Your task to perform on an android device: Clear the cart on bestbuy.com. Add "logitech g pro" to the cart on bestbuy.com, then select checkout. Image 0: 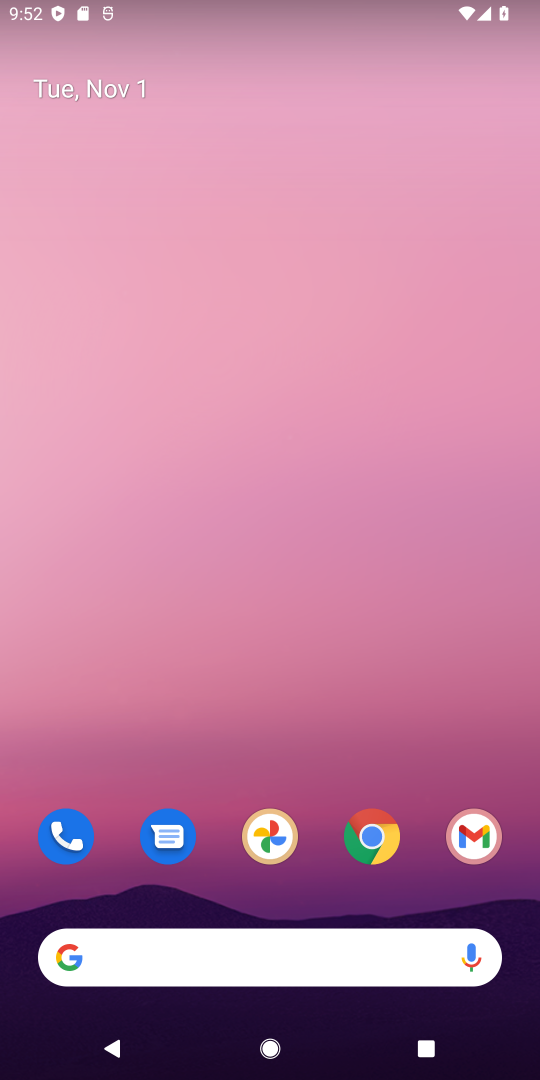
Step 0: click (352, 842)
Your task to perform on an android device: Clear the cart on bestbuy.com. Add "logitech g pro" to the cart on bestbuy.com, then select checkout. Image 1: 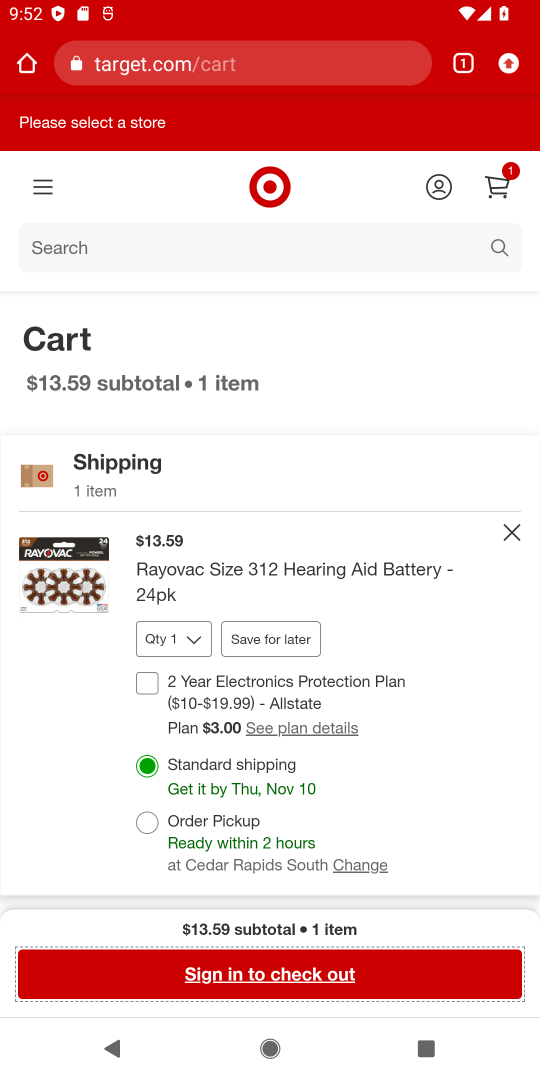
Step 1: click (279, 77)
Your task to perform on an android device: Clear the cart on bestbuy.com. Add "logitech g pro" to the cart on bestbuy.com, then select checkout. Image 2: 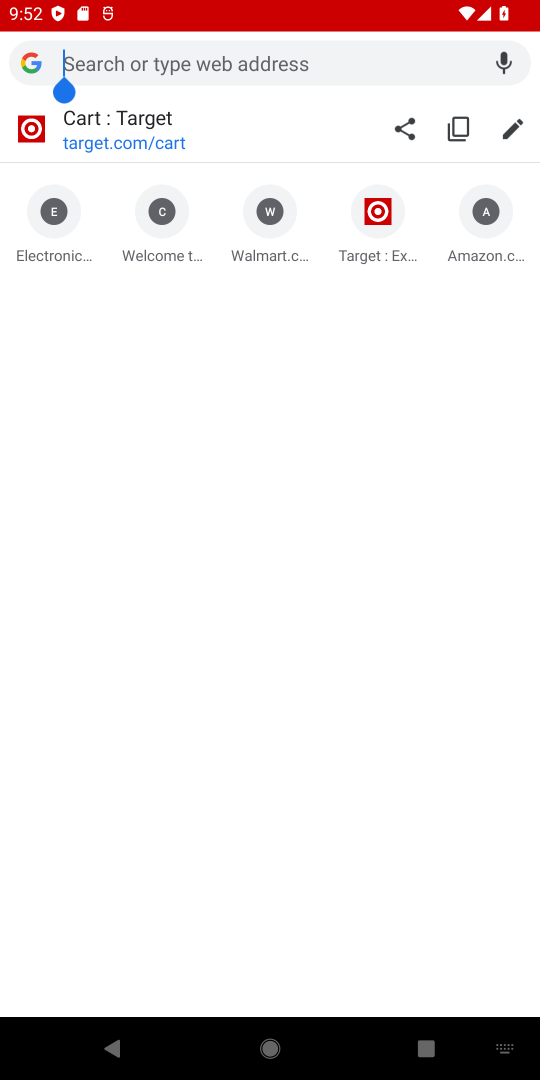
Step 2: type "bestbuy.com"
Your task to perform on an android device: Clear the cart on bestbuy.com. Add "logitech g pro" to the cart on bestbuy.com, then select checkout. Image 3: 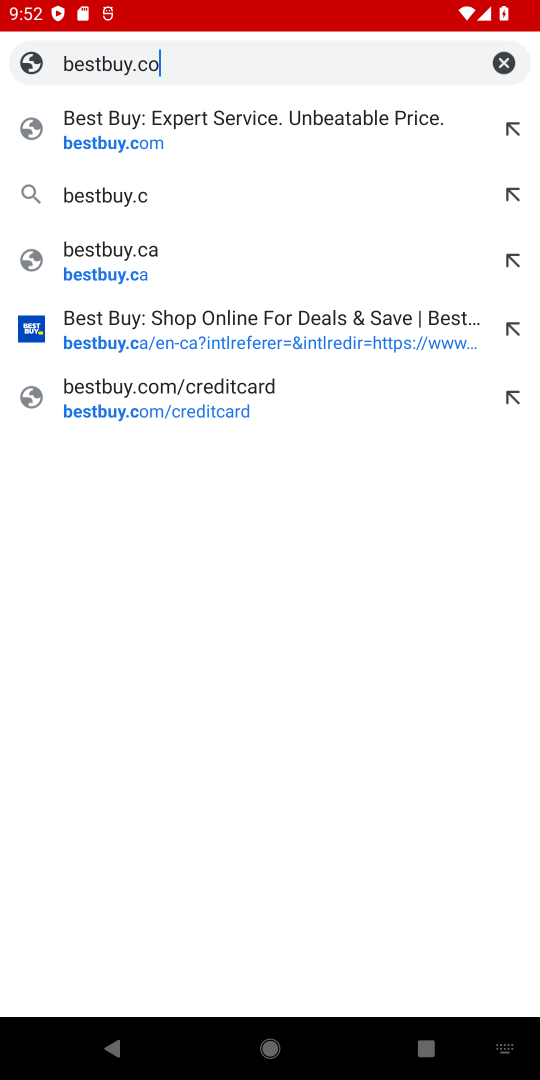
Step 3: type ""
Your task to perform on an android device: Clear the cart on bestbuy.com. Add "logitech g pro" to the cart on bestbuy.com, then select checkout. Image 4: 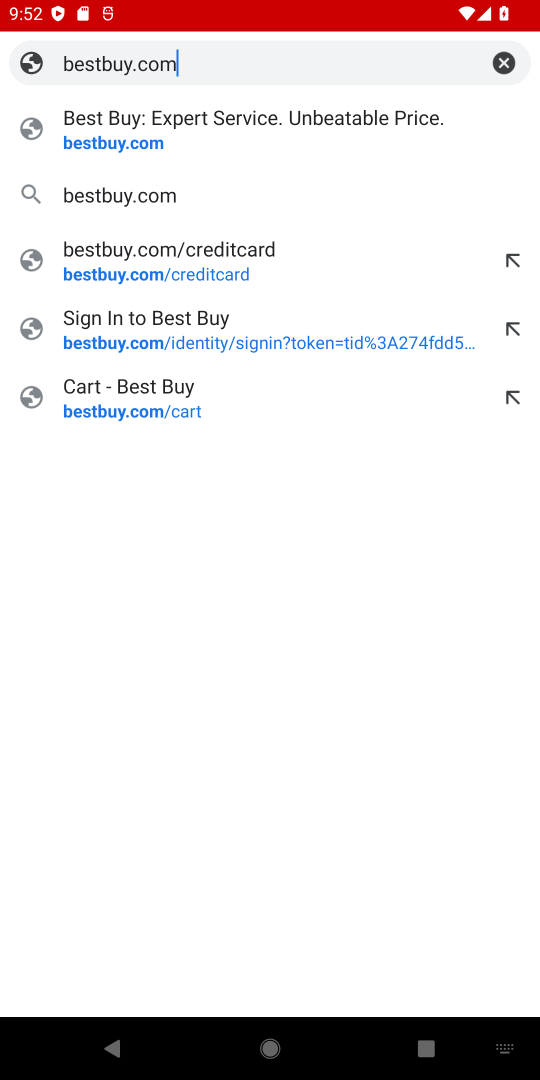
Step 4: click (306, 141)
Your task to perform on an android device: Clear the cart on bestbuy.com. Add "logitech g pro" to the cart on bestbuy.com, then select checkout. Image 5: 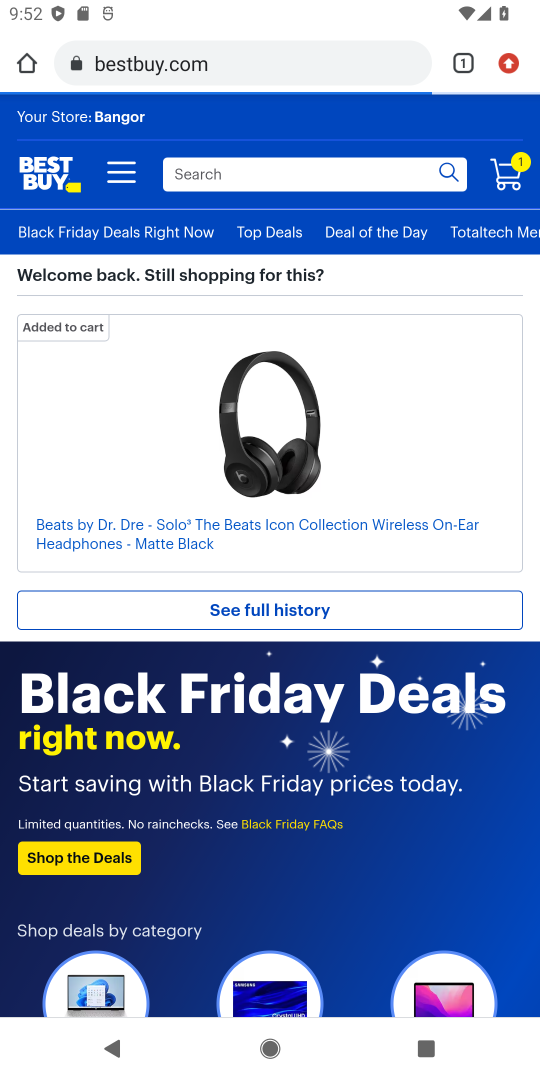
Step 5: click (300, 165)
Your task to perform on an android device: Clear the cart on bestbuy.com. Add "logitech g pro" to the cart on bestbuy.com, then select checkout. Image 6: 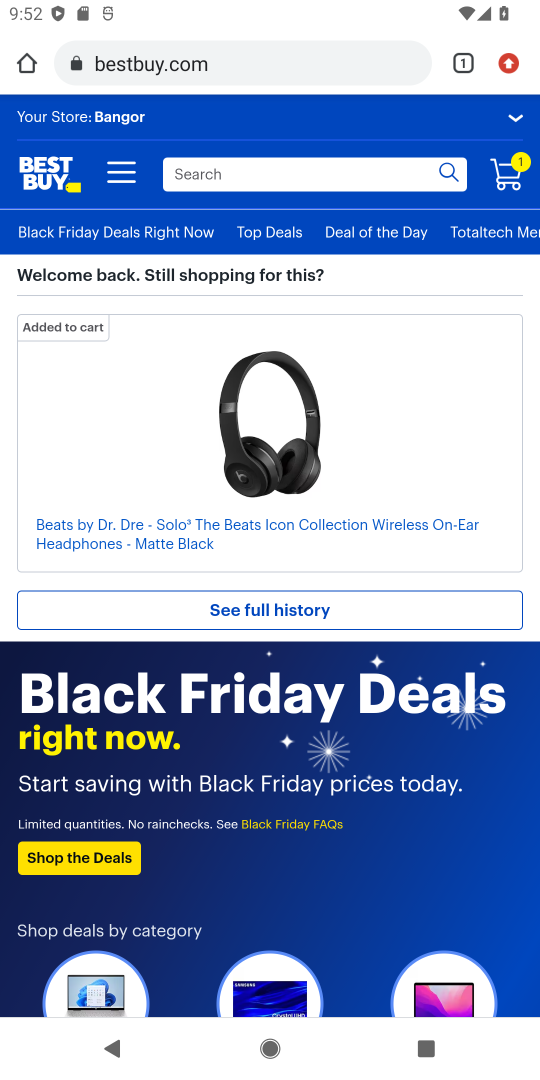
Step 6: click (307, 151)
Your task to perform on an android device: Clear the cart on bestbuy.com. Add "logitech g pro" to the cart on bestbuy.com, then select checkout. Image 7: 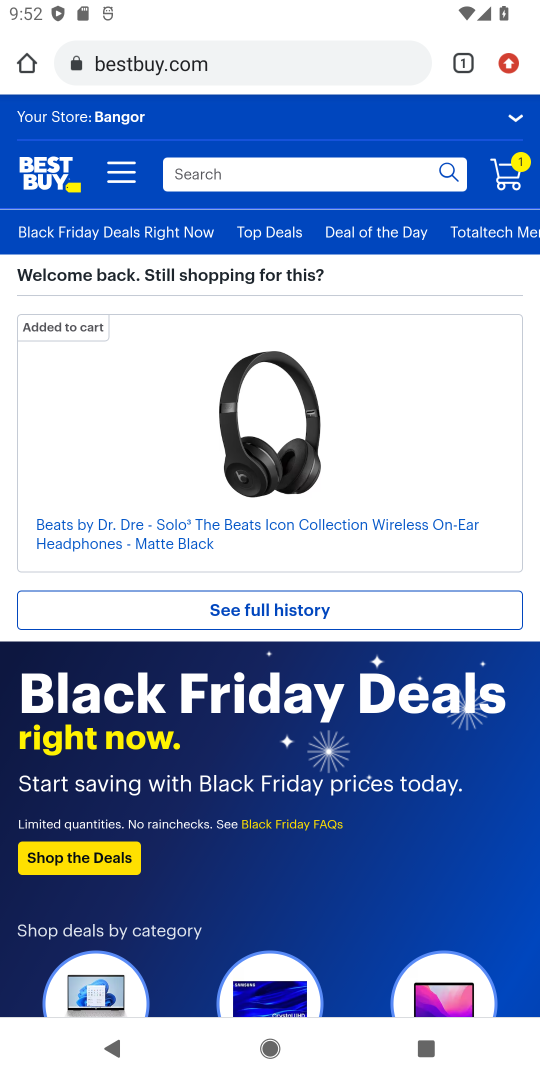
Step 7: click (298, 162)
Your task to perform on an android device: Clear the cart on bestbuy.com. Add "logitech g pro" to the cart on bestbuy.com, then select checkout. Image 8: 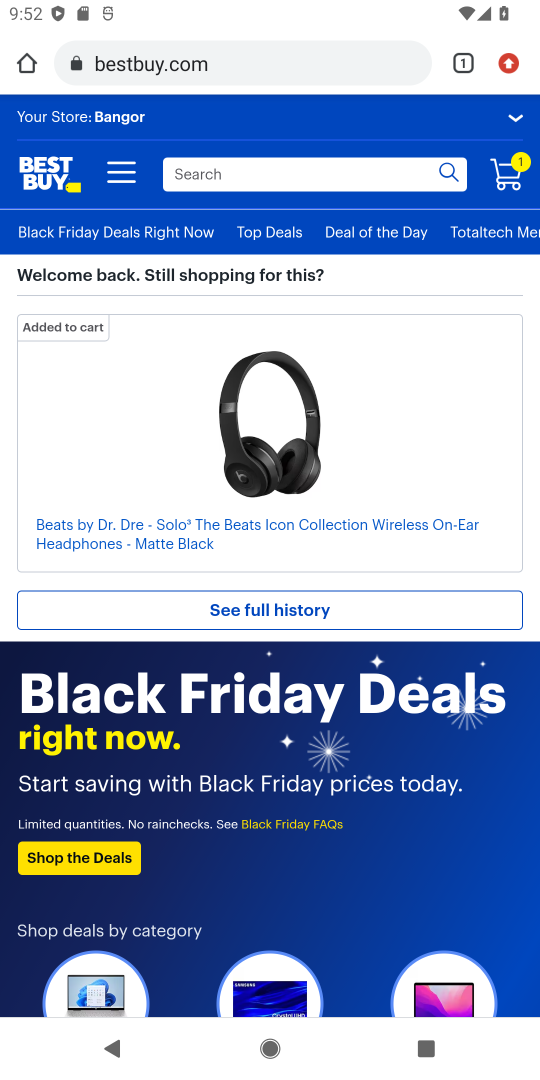
Step 8: click (361, 189)
Your task to perform on an android device: Clear the cart on bestbuy.com. Add "logitech g pro" to the cart on bestbuy.com, then select checkout. Image 9: 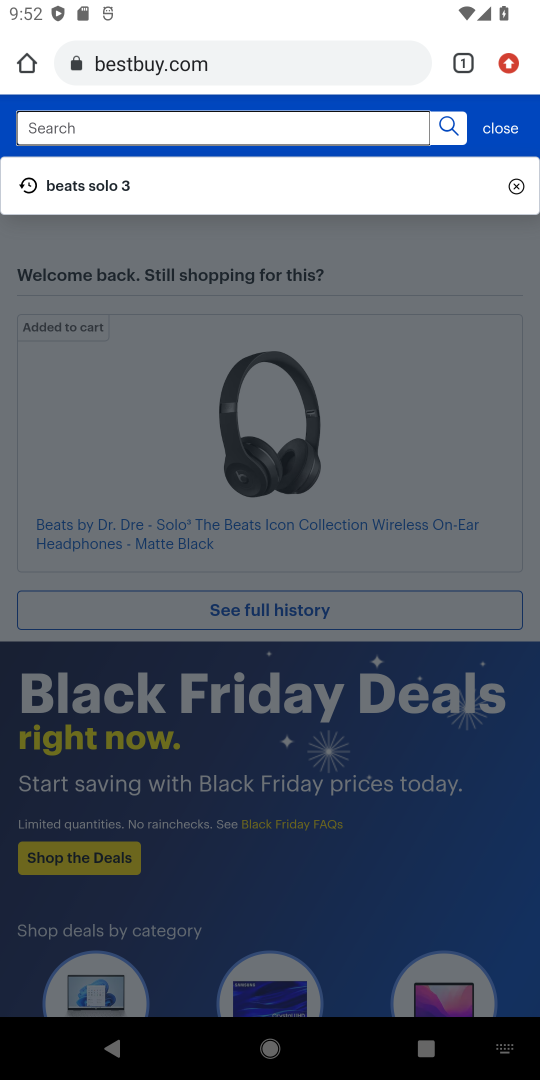
Step 9: type "logitech g pro"
Your task to perform on an android device: Clear the cart on bestbuy.com. Add "logitech g pro" to the cart on bestbuy.com, then select checkout. Image 10: 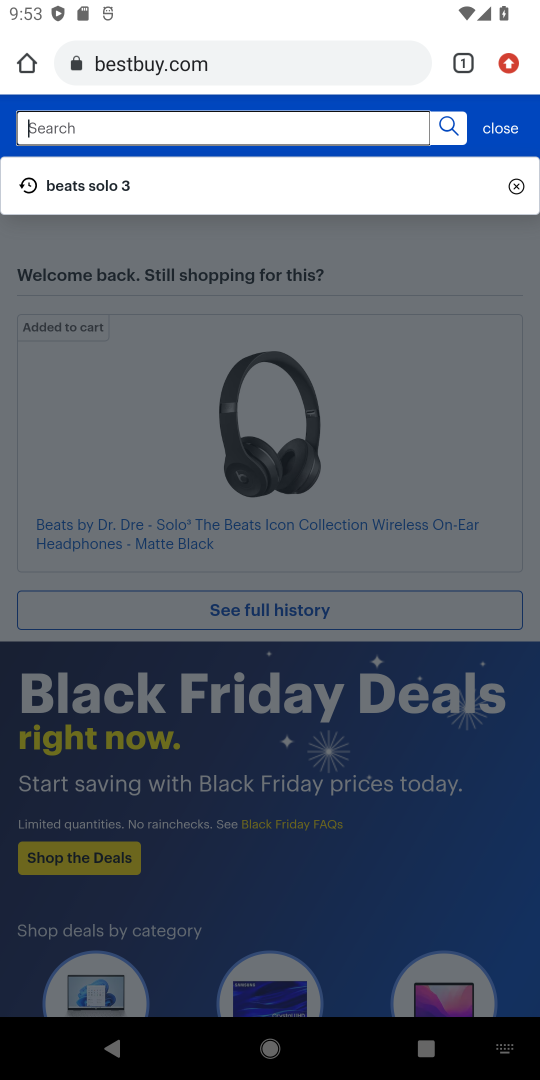
Step 10: type ""
Your task to perform on an android device: Clear the cart on bestbuy.com. Add "logitech g pro" to the cart on bestbuy.com, then select checkout. Image 11: 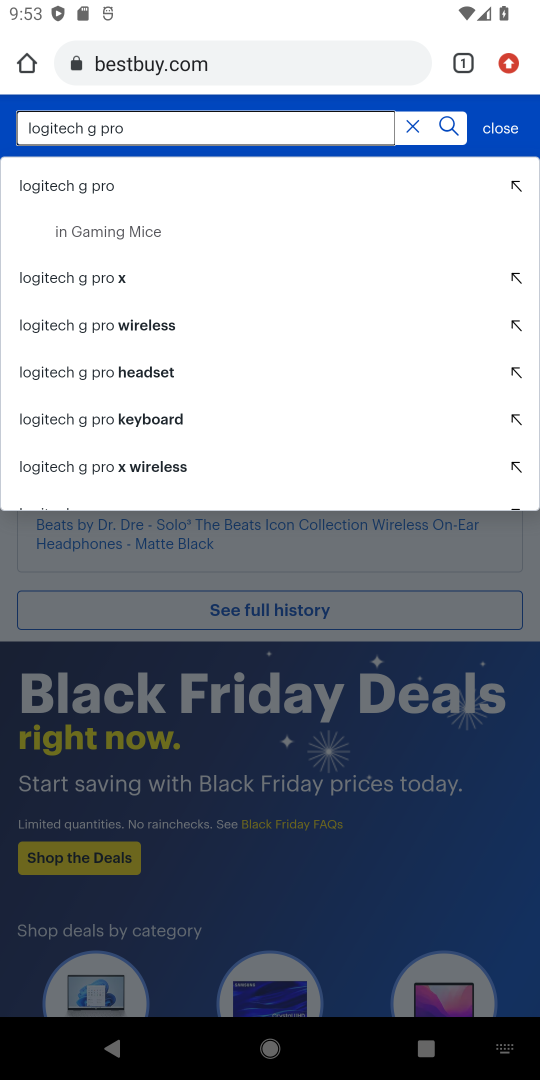
Step 11: click (97, 197)
Your task to perform on an android device: Clear the cart on bestbuy.com. Add "logitech g pro" to the cart on bestbuy.com, then select checkout. Image 12: 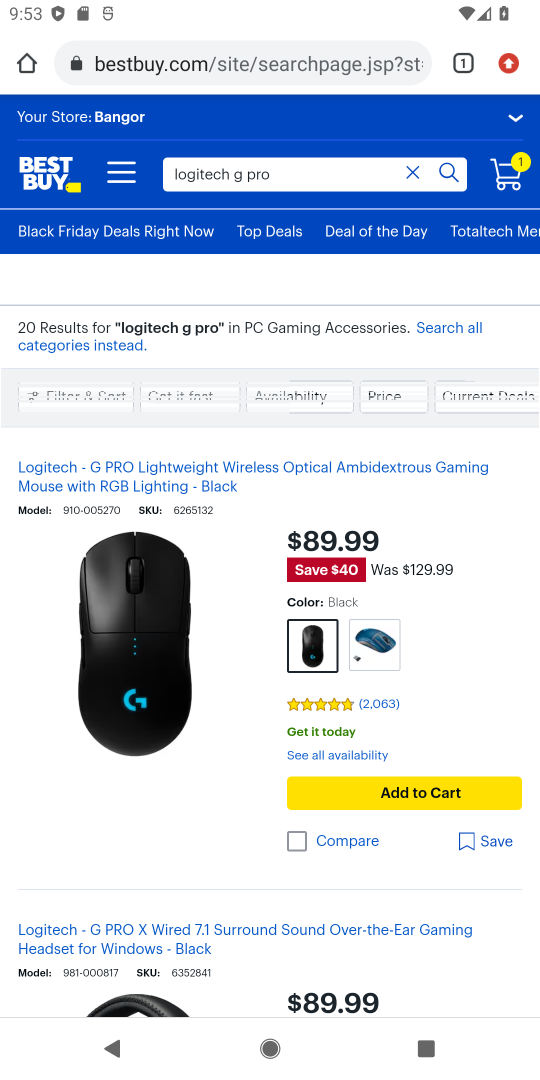
Step 12: click (494, 160)
Your task to perform on an android device: Clear the cart on bestbuy.com. Add "logitech g pro" to the cart on bestbuy.com, then select checkout. Image 13: 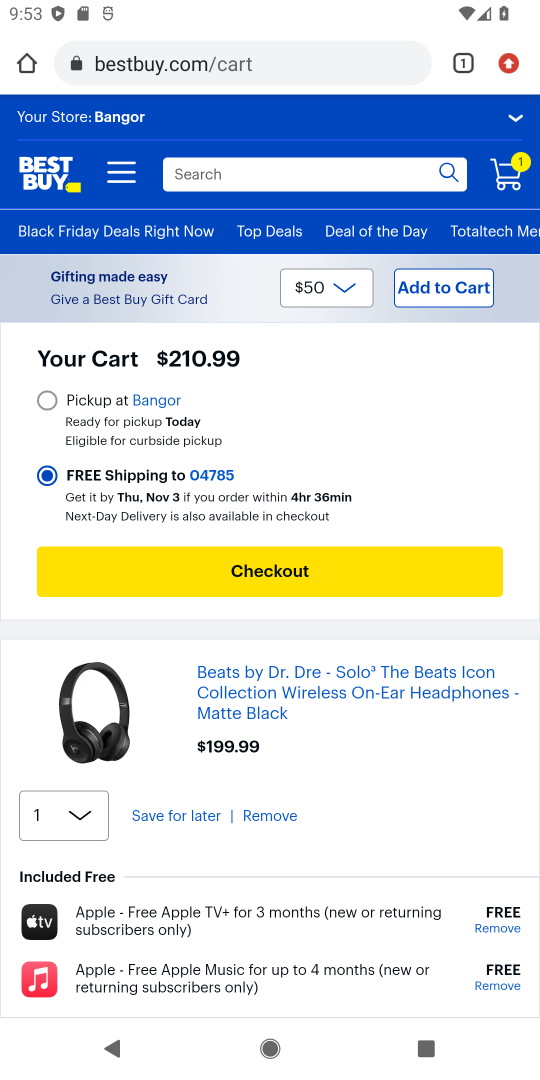
Step 13: click (272, 819)
Your task to perform on an android device: Clear the cart on bestbuy.com. Add "logitech g pro" to the cart on bestbuy.com, then select checkout. Image 14: 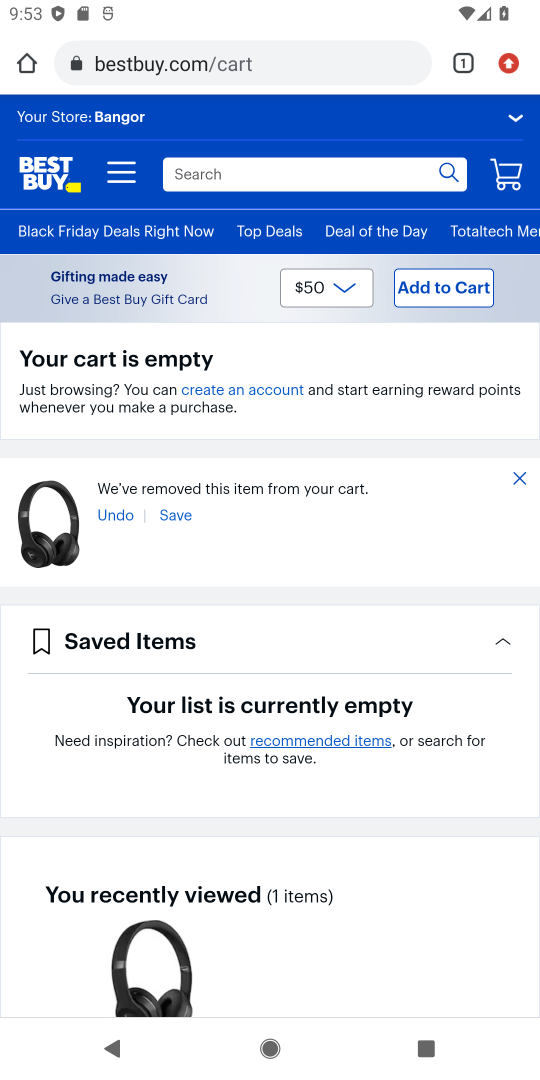
Step 14: click (526, 480)
Your task to perform on an android device: Clear the cart on bestbuy.com. Add "logitech g pro" to the cart on bestbuy.com, then select checkout. Image 15: 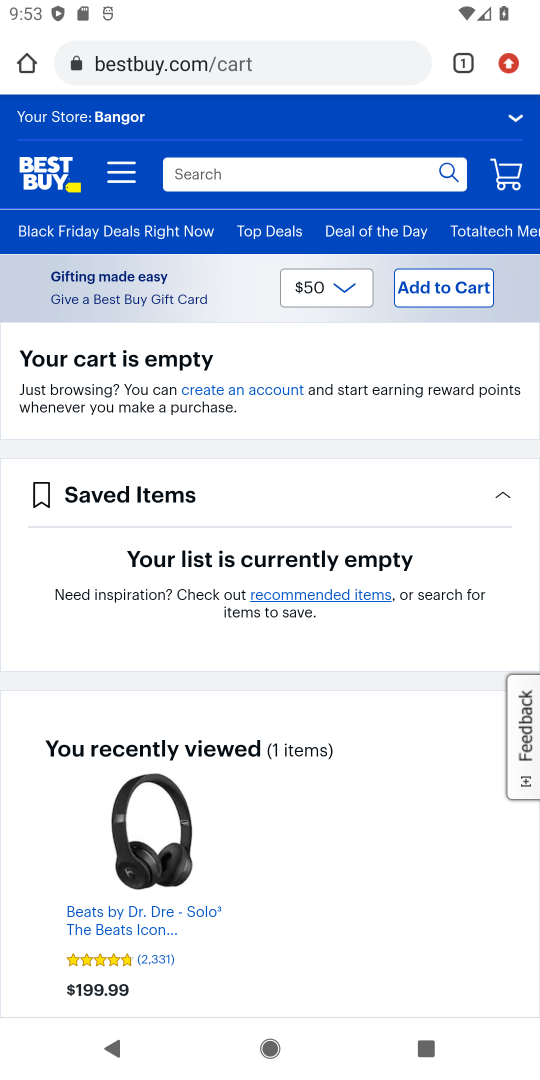
Step 15: click (249, 170)
Your task to perform on an android device: Clear the cart on bestbuy.com. Add "logitech g pro" to the cart on bestbuy.com, then select checkout. Image 16: 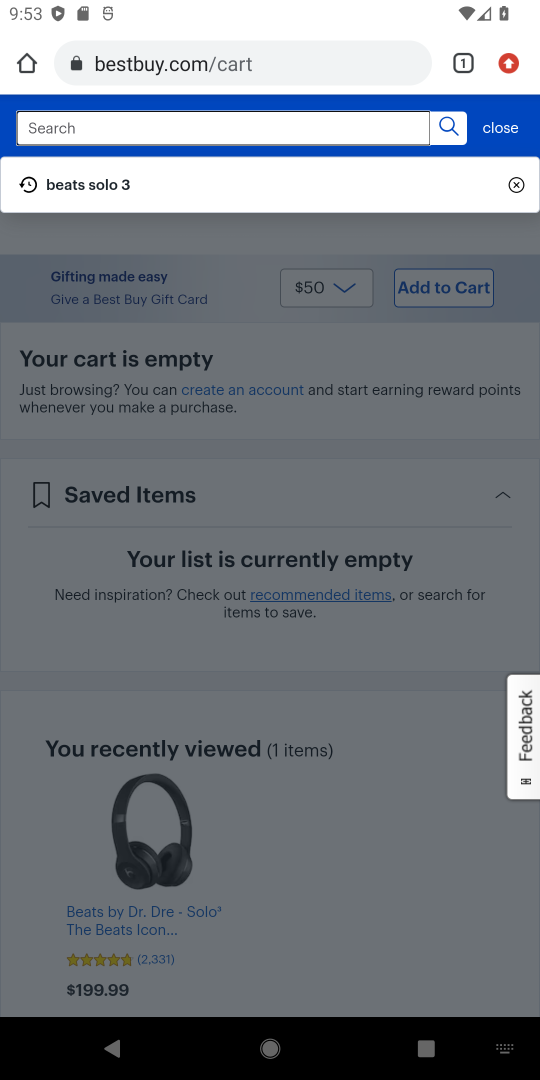
Step 16: type "logitech g pro"
Your task to perform on an android device: Clear the cart on bestbuy.com. Add "logitech g pro" to the cart on bestbuy.com, then select checkout. Image 17: 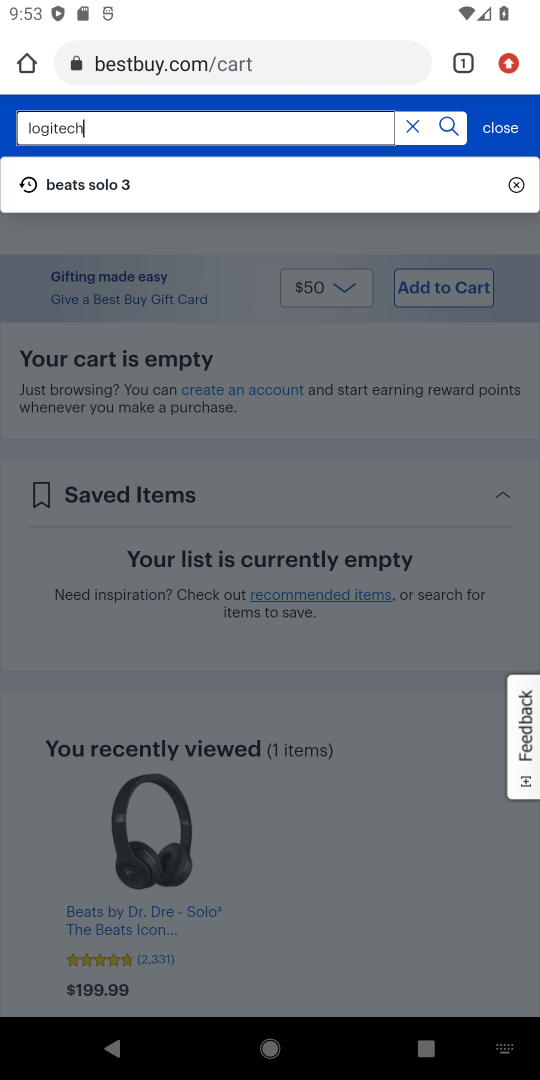
Step 17: type ""
Your task to perform on an android device: Clear the cart on bestbuy.com. Add "logitech g pro" to the cart on bestbuy.com, then select checkout. Image 18: 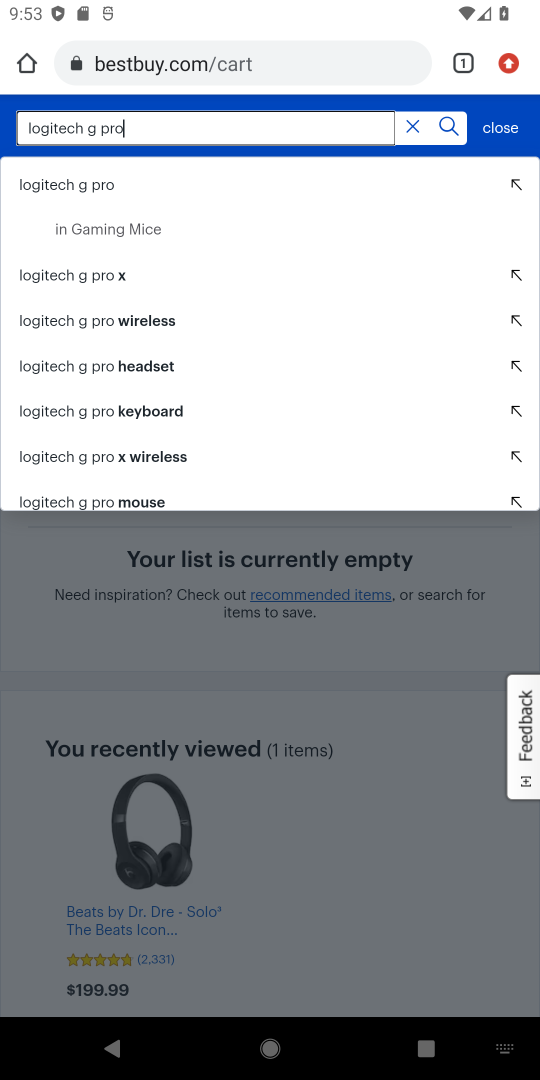
Step 18: click (75, 187)
Your task to perform on an android device: Clear the cart on bestbuy.com. Add "logitech g pro" to the cart on bestbuy.com, then select checkout. Image 19: 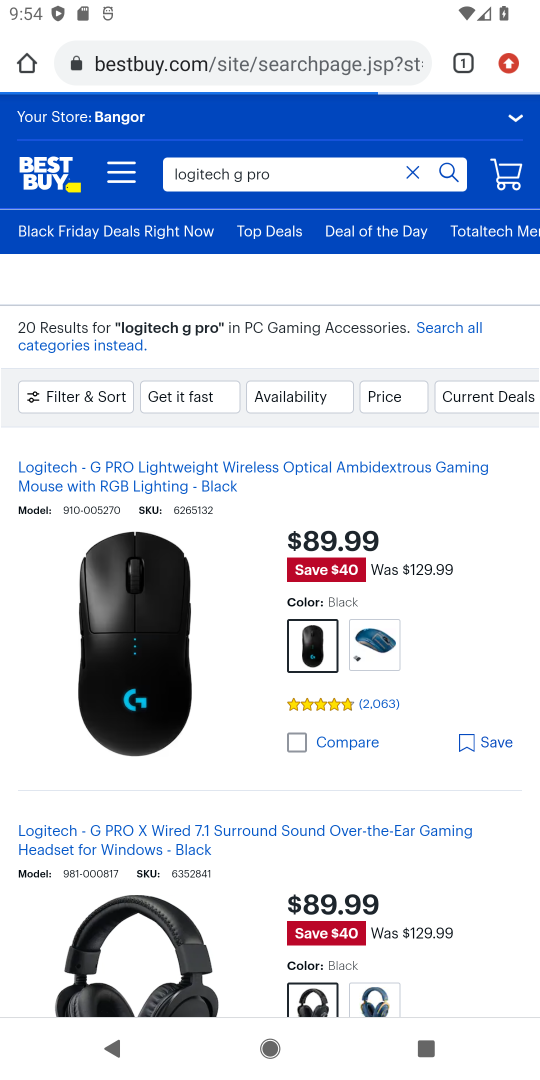
Step 19: click (252, 697)
Your task to perform on an android device: Clear the cart on bestbuy.com. Add "logitech g pro" to the cart on bestbuy.com, then select checkout. Image 20: 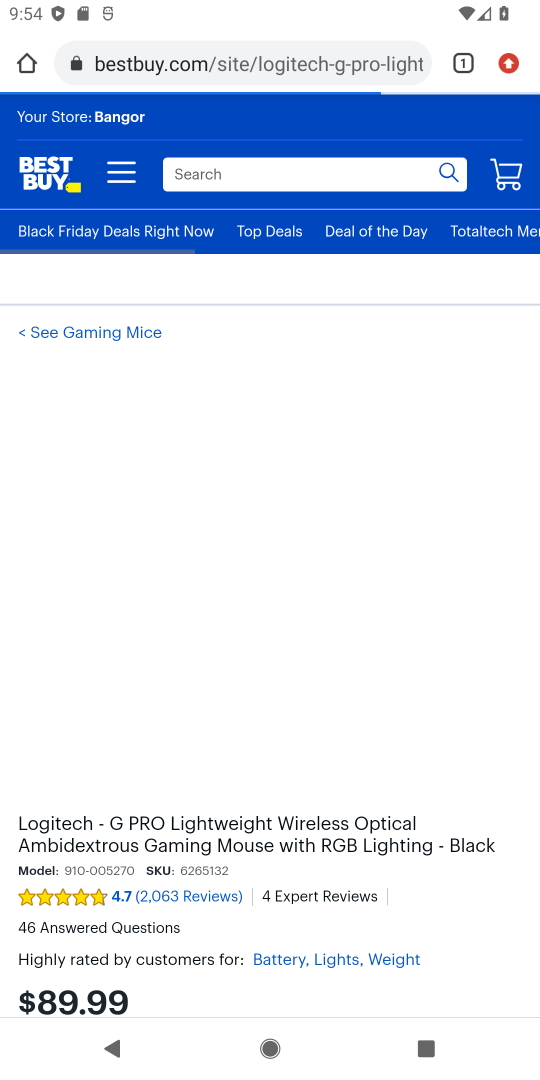
Step 20: click (451, 775)
Your task to perform on an android device: Clear the cart on bestbuy.com. Add "logitech g pro" to the cart on bestbuy.com, then select checkout. Image 21: 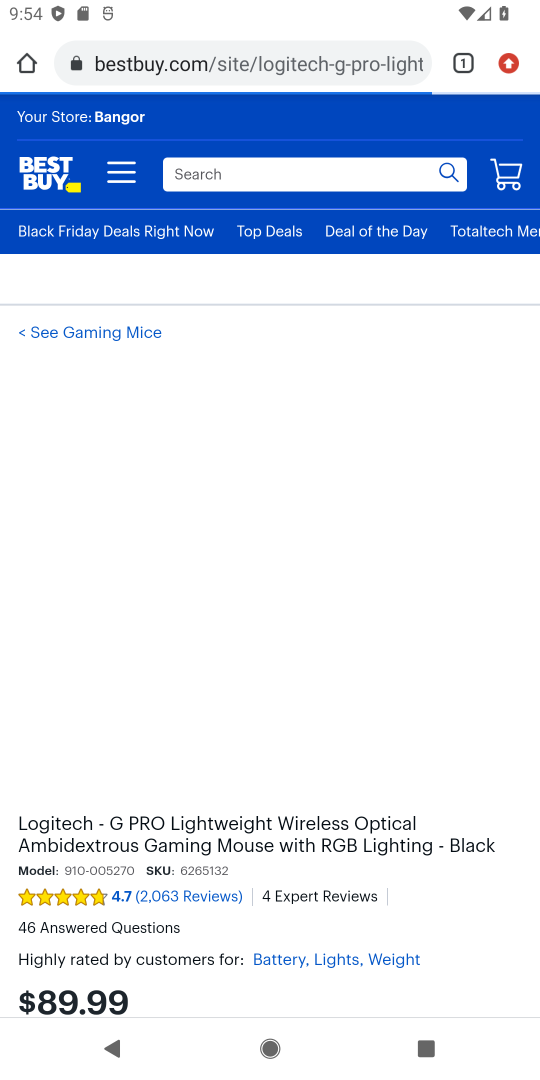
Step 21: drag from (421, 812) to (408, 171)
Your task to perform on an android device: Clear the cart on bestbuy.com. Add "logitech g pro" to the cart on bestbuy.com, then select checkout. Image 22: 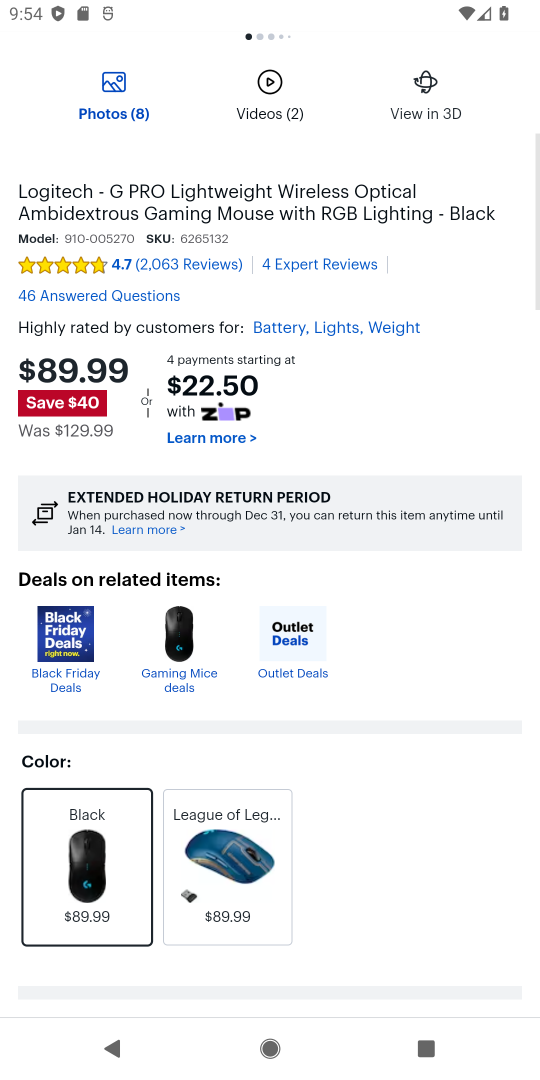
Step 22: drag from (363, 738) to (406, 340)
Your task to perform on an android device: Clear the cart on bestbuy.com. Add "logitech g pro" to the cart on bestbuy.com, then select checkout. Image 23: 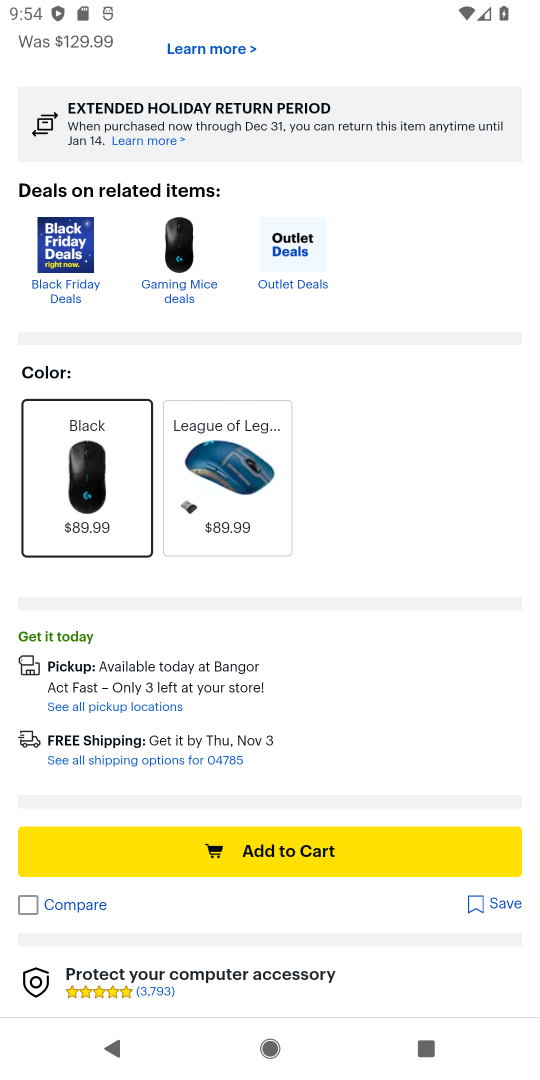
Step 23: click (290, 822)
Your task to perform on an android device: Clear the cart on bestbuy.com. Add "logitech g pro" to the cart on bestbuy.com, then select checkout. Image 24: 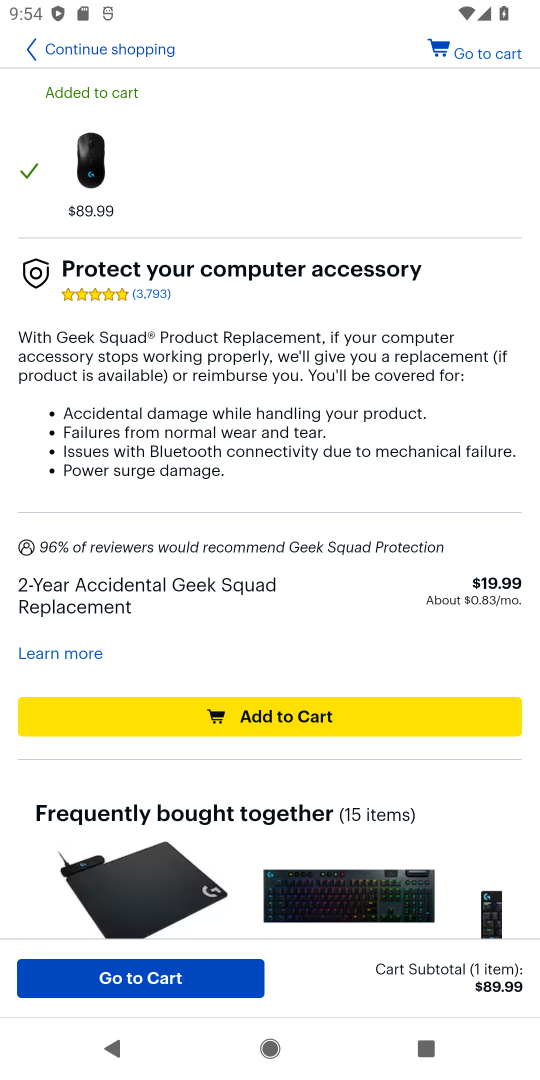
Step 24: click (303, 709)
Your task to perform on an android device: Clear the cart on bestbuy.com. Add "logitech g pro" to the cart on bestbuy.com, then select checkout. Image 25: 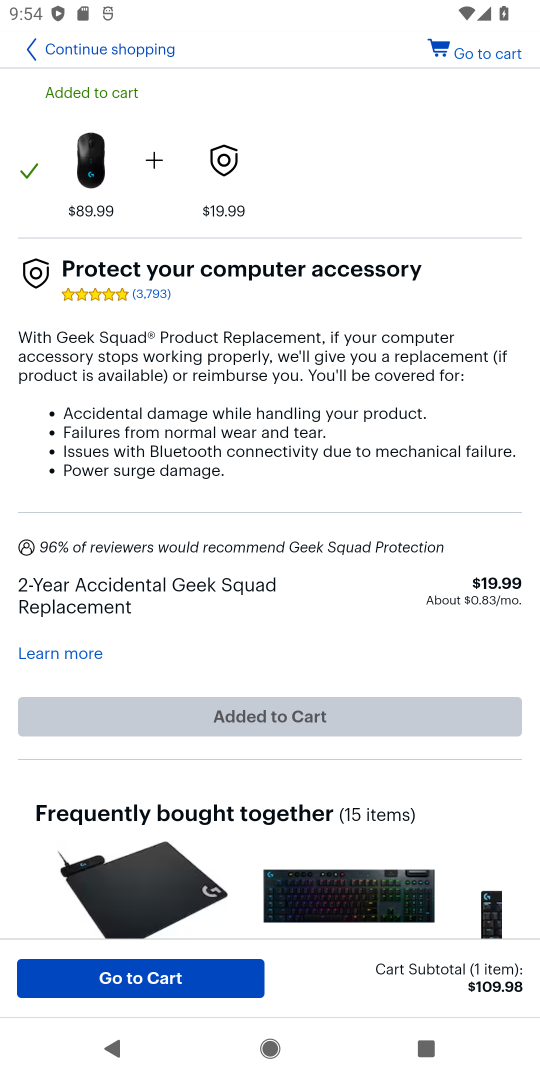
Step 25: click (480, 50)
Your task to perform on an android device: Clear the cart on bestbuy.com. Add "logitech g pro" to the cart on bestbuy.com, then select checkout. Image 26: 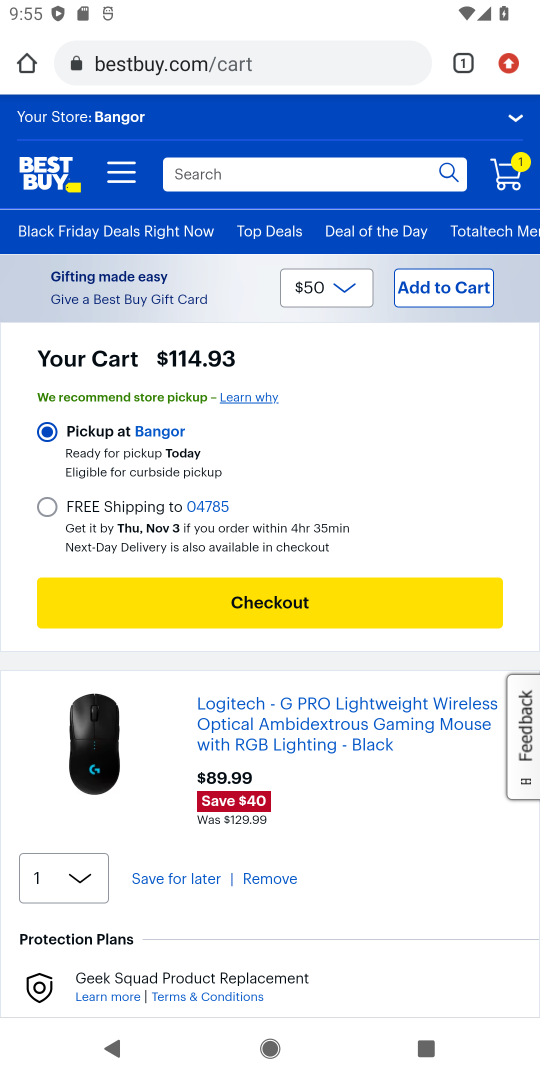
Step 26: click (311, 602)
Your task to perform on an android device: Clear the cart on bestbuy.com. Add "logitech g pro" to the cart on bestbuy.com, then select checkout. Image 27: 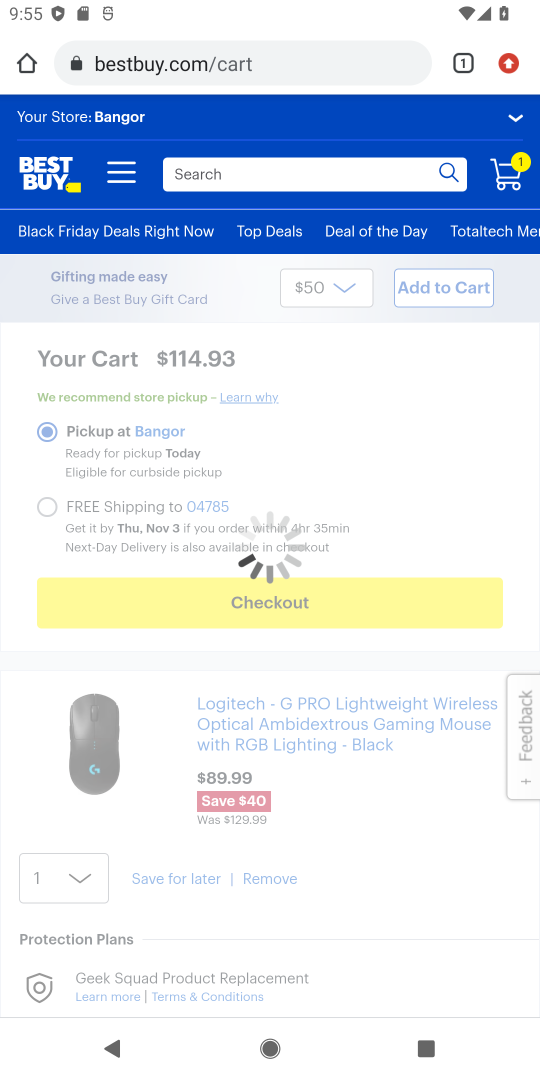
Step 27: task complete